Your task to perform on an android device: When is my next appointment? Image 0: 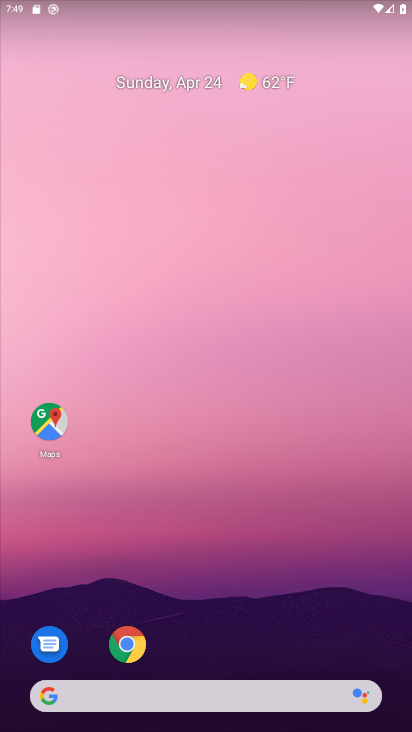
Step 0: drag from (219, 640) to (231, 102)
Your task to perform on an android device: When is my next appointment? Image 1: 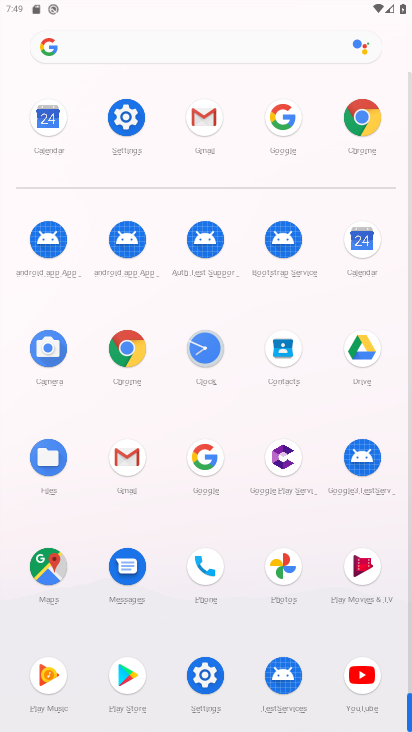
Step 1: click (363, 241)
Your task to perform on an android device: When is my next appointment? Image 2: 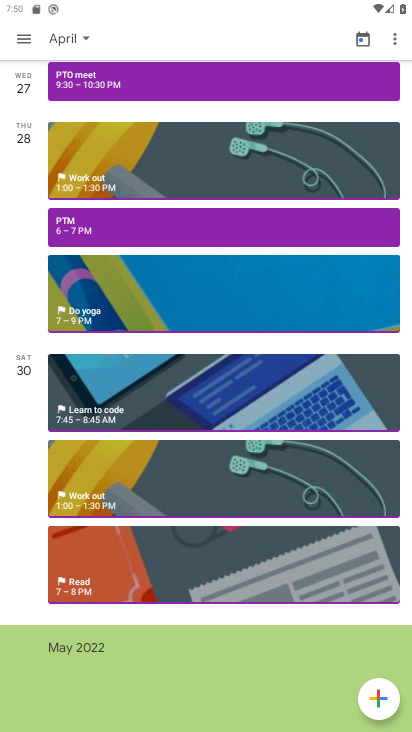
Step 2: click (19, 36)
Your task to perform on an android device: When is my next appointment? Image 3: 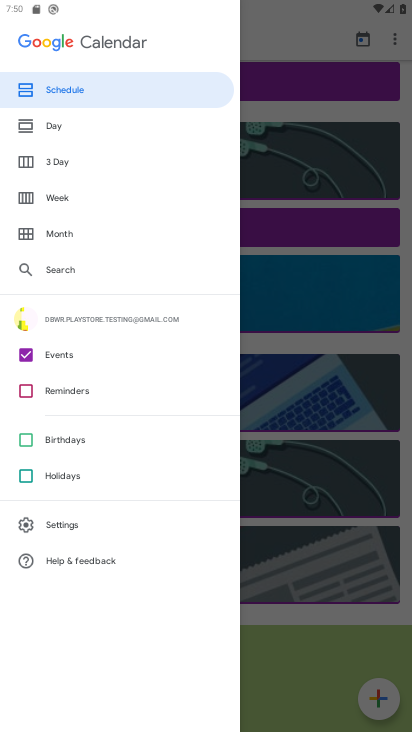
Step 3: click (40, 196)
Your task to perform on an android device: When is my next appointment? Image 4: 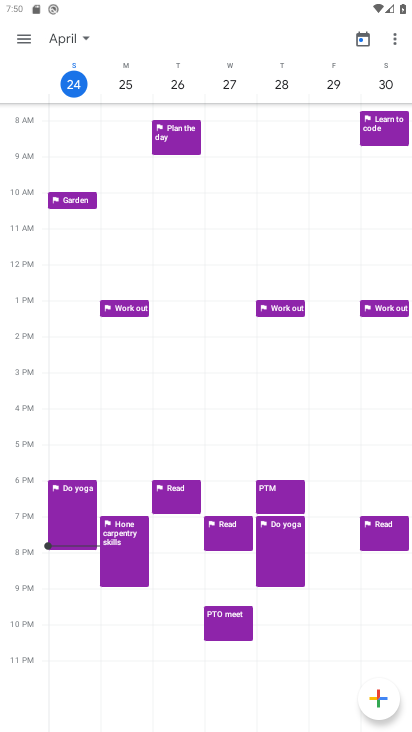
Step 4: click (74, 82)
Your task to perform on an android device: When is my next appointment? Image 5: 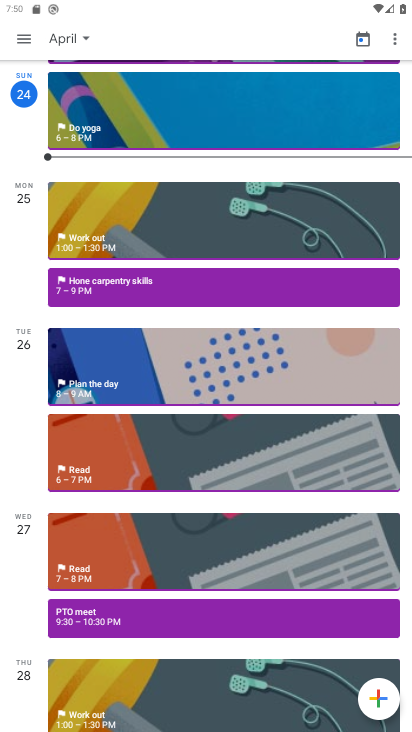
Step 5: click (23, 141)
Your task to perform on an android device: When is my next appointment? Image 6: 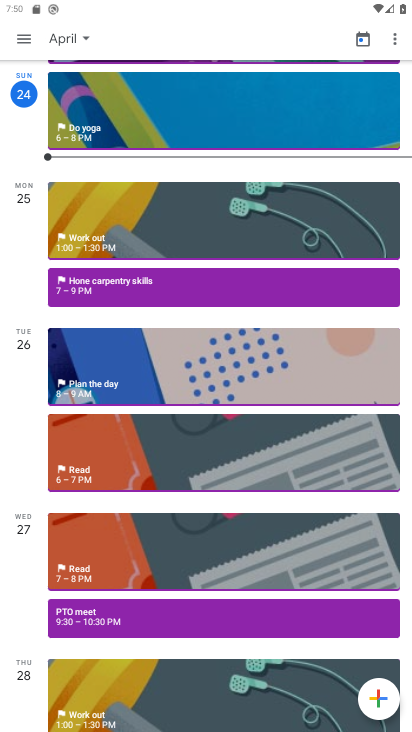
Step 6: click (35, 483)
Your task to perform on an android device: When is my next appointment? Image 7: 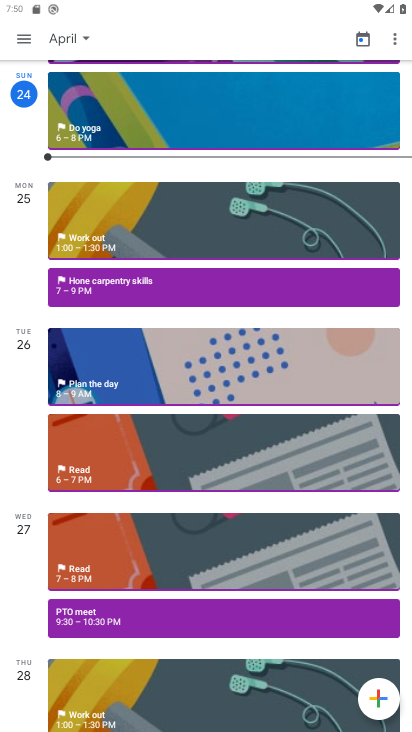
Step 7: task complete